Your task to perform on an android device: turn on the 12-hour format for clock Image 0: 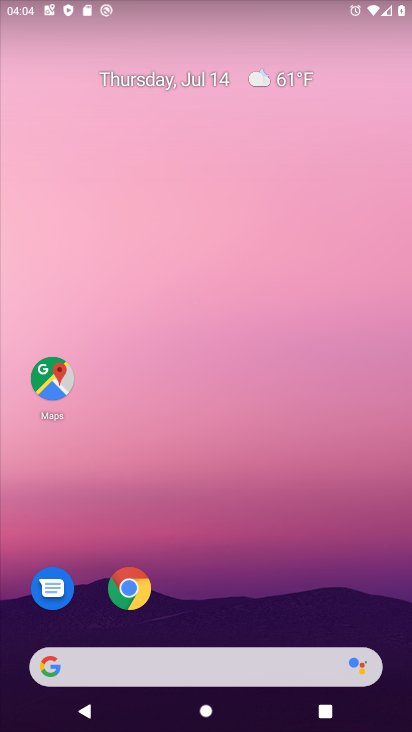
Step 0: press home button
Your task to perform on an android device: turn on the 12-hour format for clock Image 1: 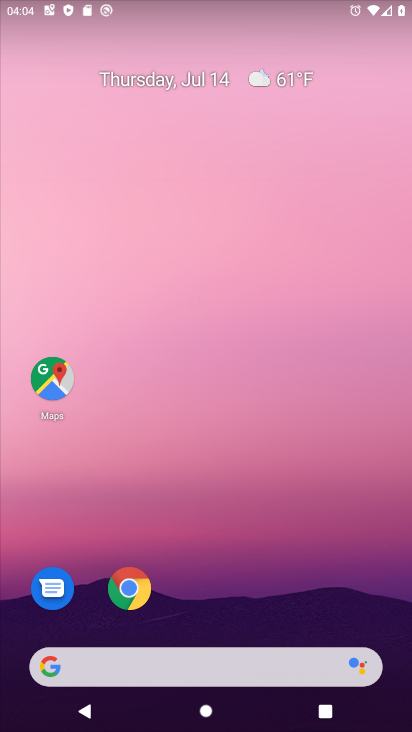
Step 1: drag from (312, 591) to (300, 16)
Your task to perform on an android device: turn on the 12-hour format for clock Image 2: 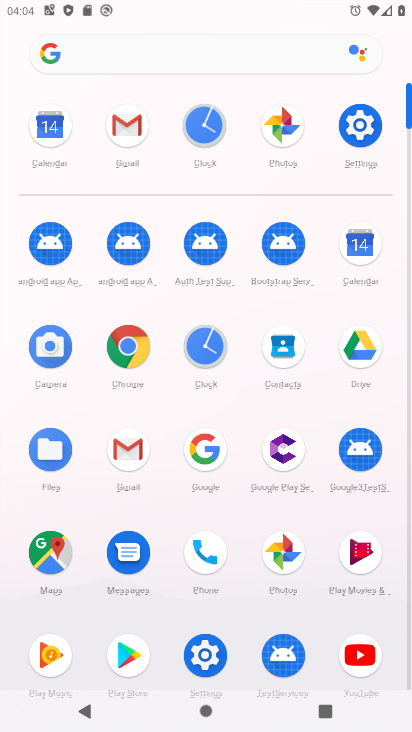
Step 2: click (213, 342)
Your task to perform on an android device: turn on the 12-hour format for clock Image 3: 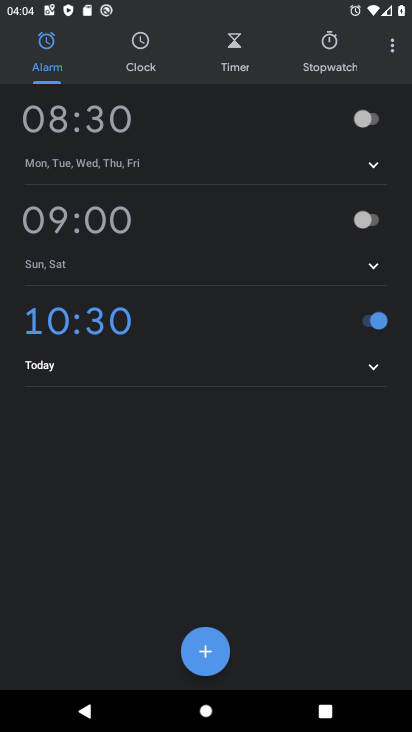
Step 3: click (395, 45)
Your task to perform on an android device: turn on the 12-hour format for clock Image 4: 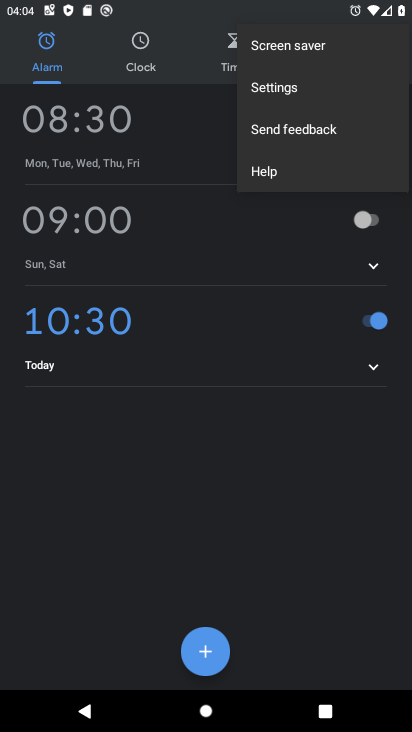
Step 4: click (288, 93)
Your task to perform on an android device: turn on the 12-hour format for clock Image 5: 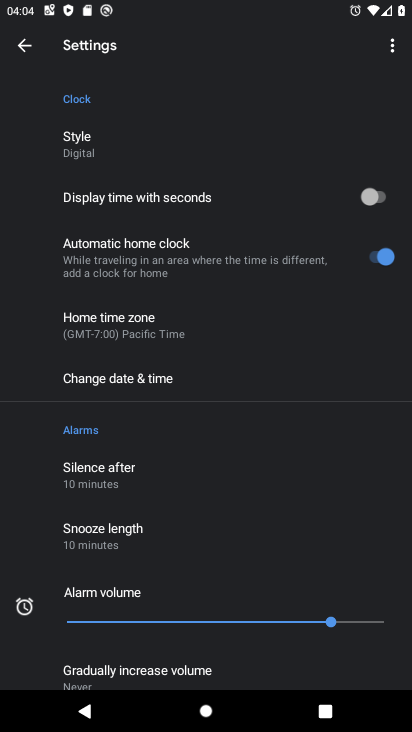
Step 5: click (146, 380)
Your task to perform on an android device: turn on the 12-hour format for clock Image 6: 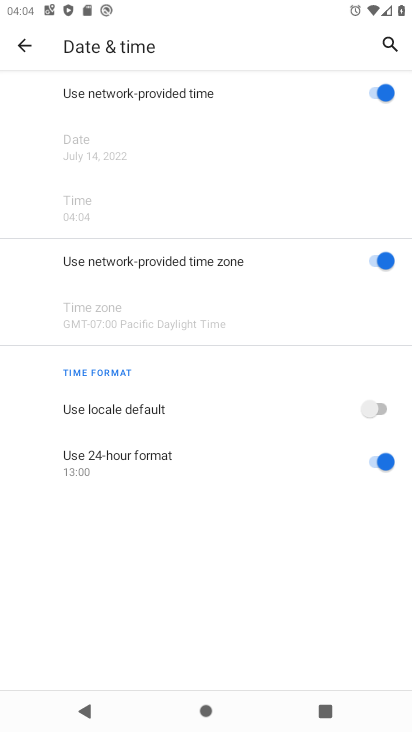
Step 6: click (385, 469)
Your task to perform on an android device: turn on the 12-hour format for clock Image 7: 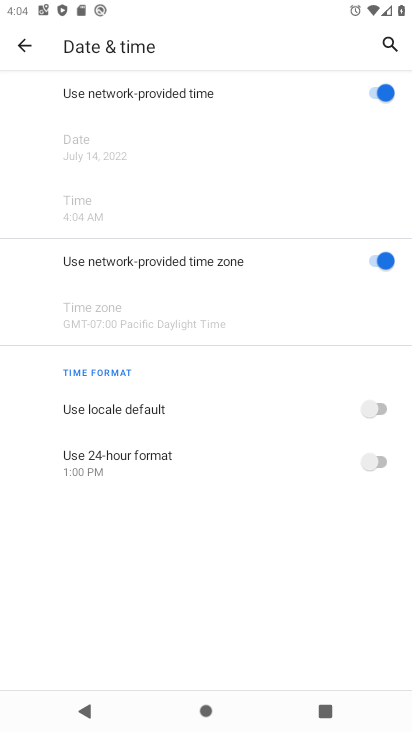
Step 7: click (380, 407)
Your task to perform on an android device: turn on the 12-hour format for clock Image 8: 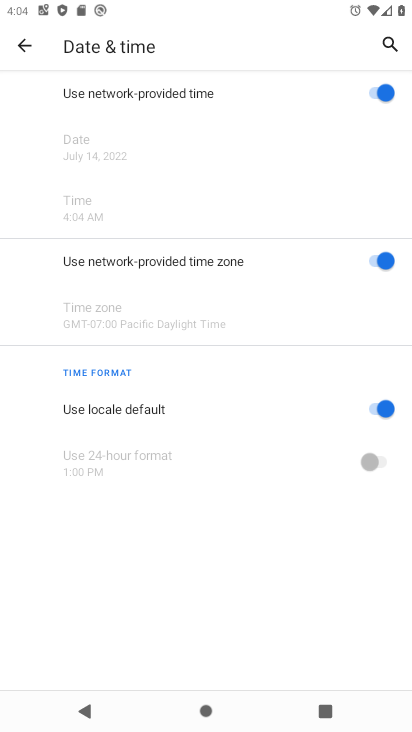
Step 8: task complete